Your task to perform on an android device: turn off airplane mode Image 0: 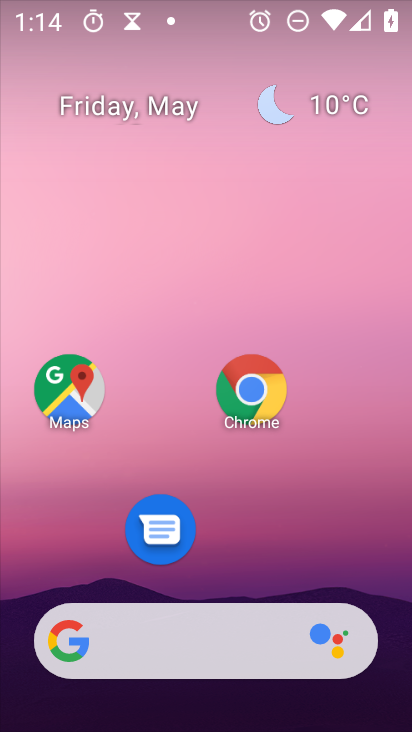
Step 0: press home button
Your task to perform on an android device: turn off airplane mode Image 1: 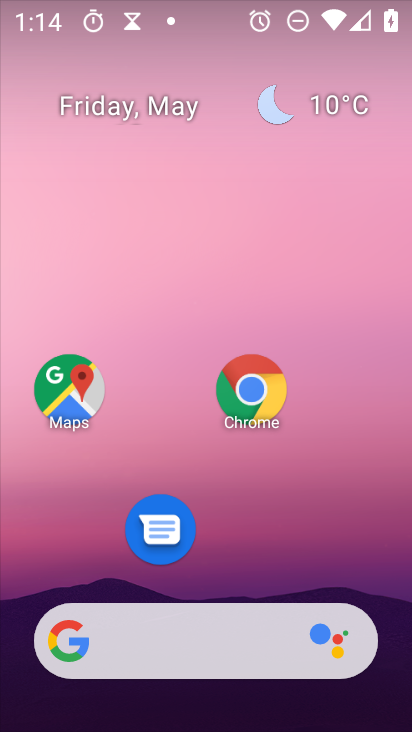
Step 1: drag from (167, 648) to (322, 118)
Your task to perform on an android device: turn off airplane mode Image 2: 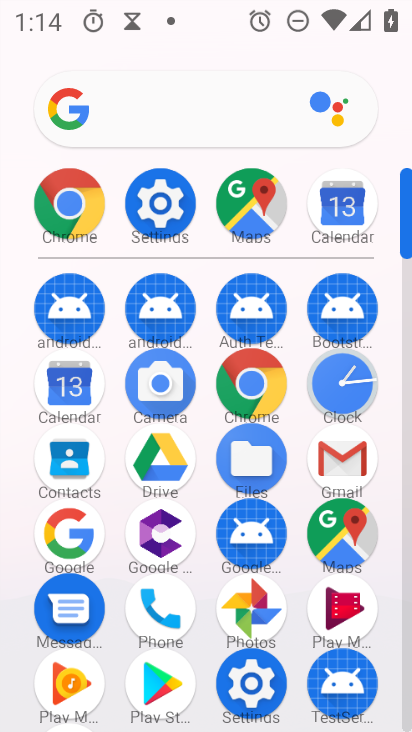
Step 2: click (161, 211)
Your task to perform on an android device: turn off airplane mode Image 3: 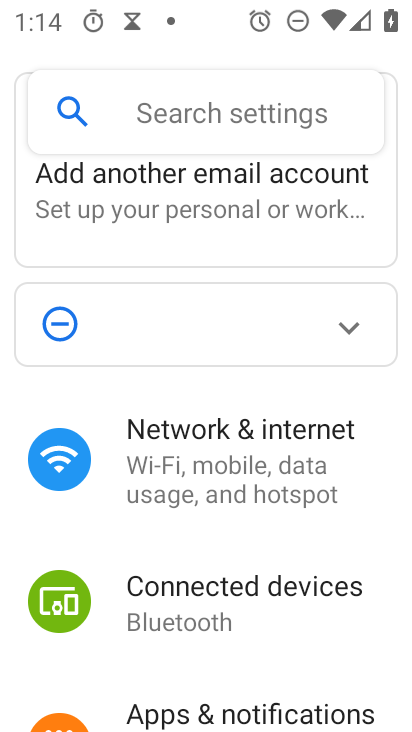
Step 3: click (230, 449)
Your task to perform on an android device: turn off airplane mode Image 4: 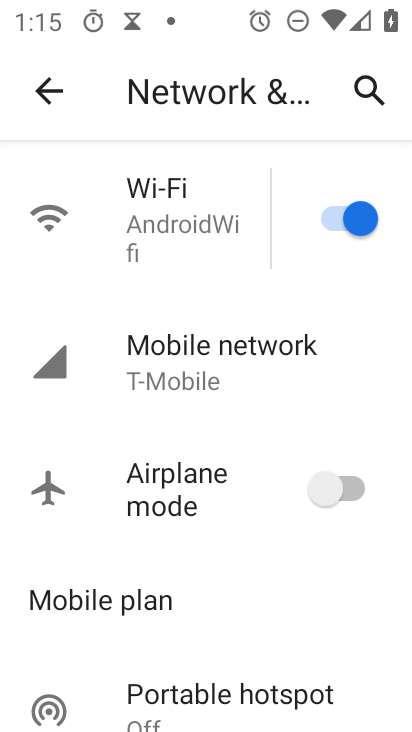
Step 4: task complete